Your task to perform on an android device: Clear the shopping cart on bestbuy.com. Search for "acer predator" on bestbuy.com, select the first entry, add it to the cart, then select checkout. Image 0: 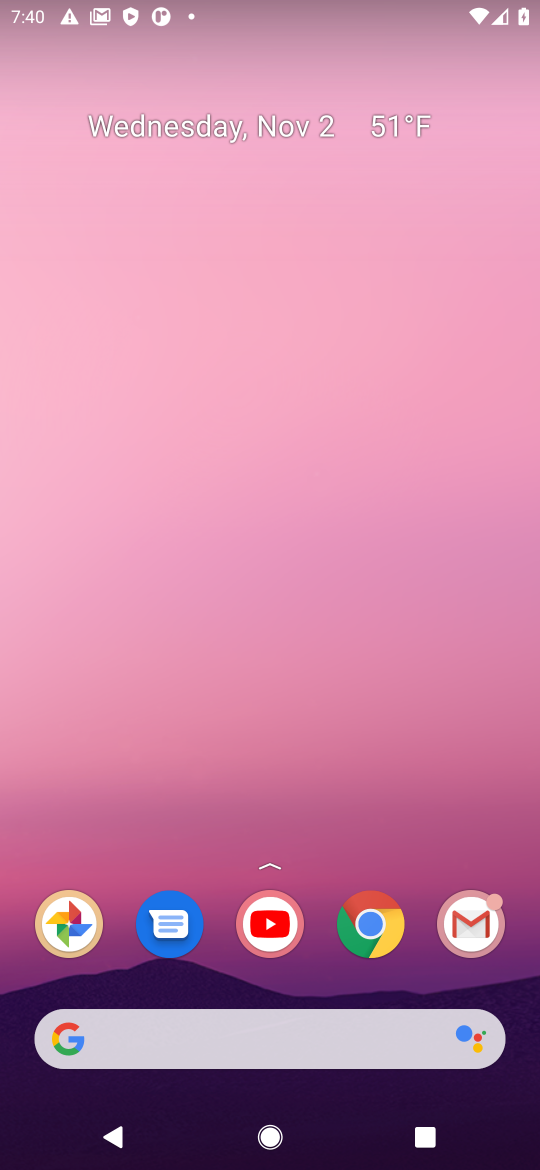
Step 0: click (381, 929)
Your task to perform on an android device: Clear the shopping cart on bestbuy.com. Search for "acer predator" on bestbuy.com, select the first entry, add it to the cart, then select checkout. Image 1: 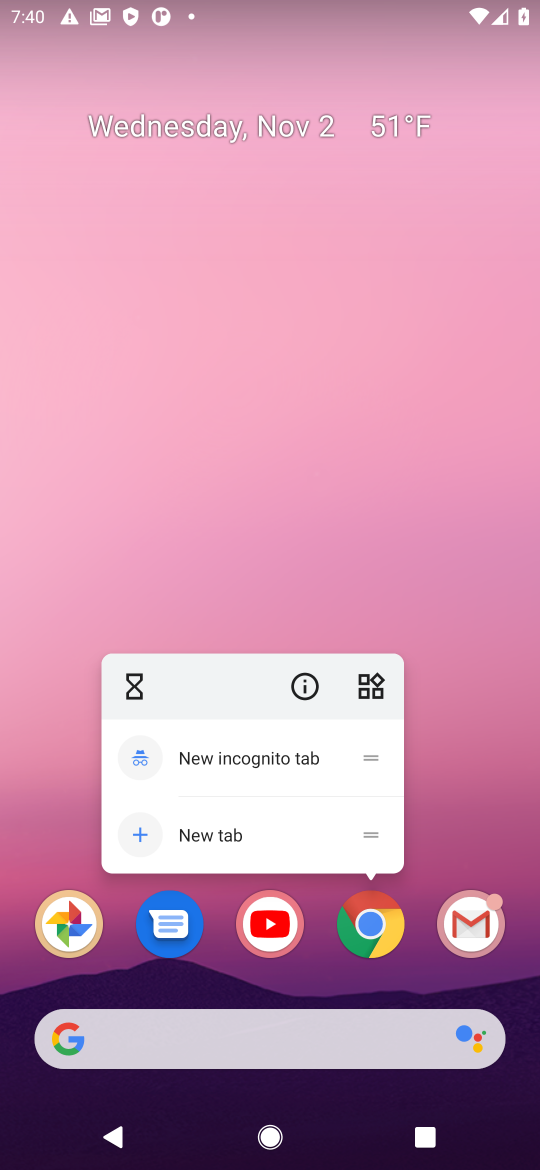
Step 1: click (351, 938)
Your task to perform on an android device: Clear the shopping cart on bestbuy.com. Search for "acer predator" on bestbuy.com, select the first entry, add it to the cart, then select checkout. Image 2: 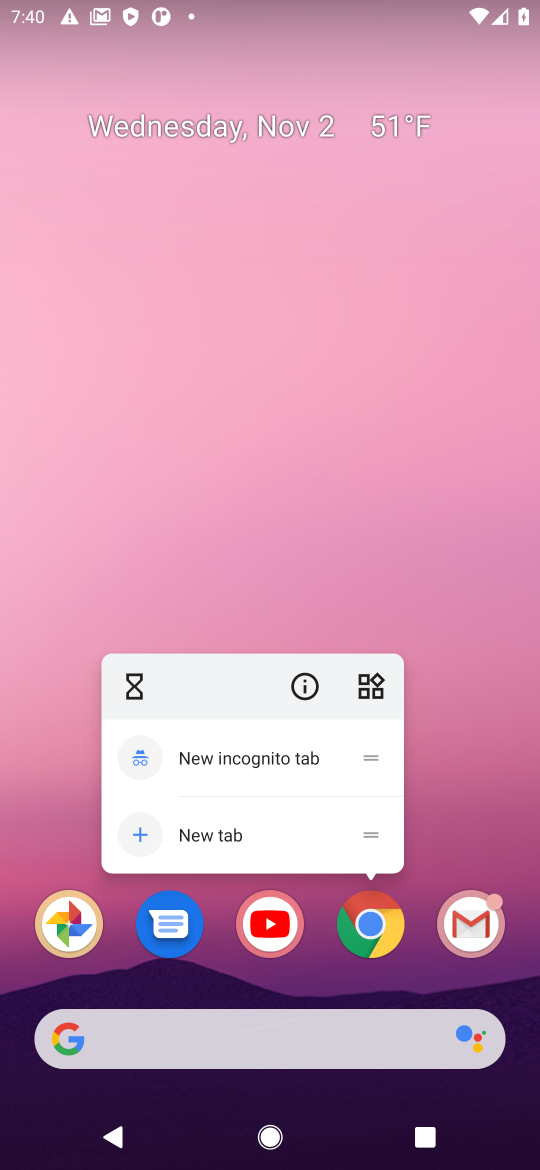
Step 2: click (348, 935)
Your task to perform on an android device: Clear the shopping cart on bestbuy.com. Search for "acer predator" on bestbuy.com, select the first entry, add it to the cart, then select checkout. Image 3: 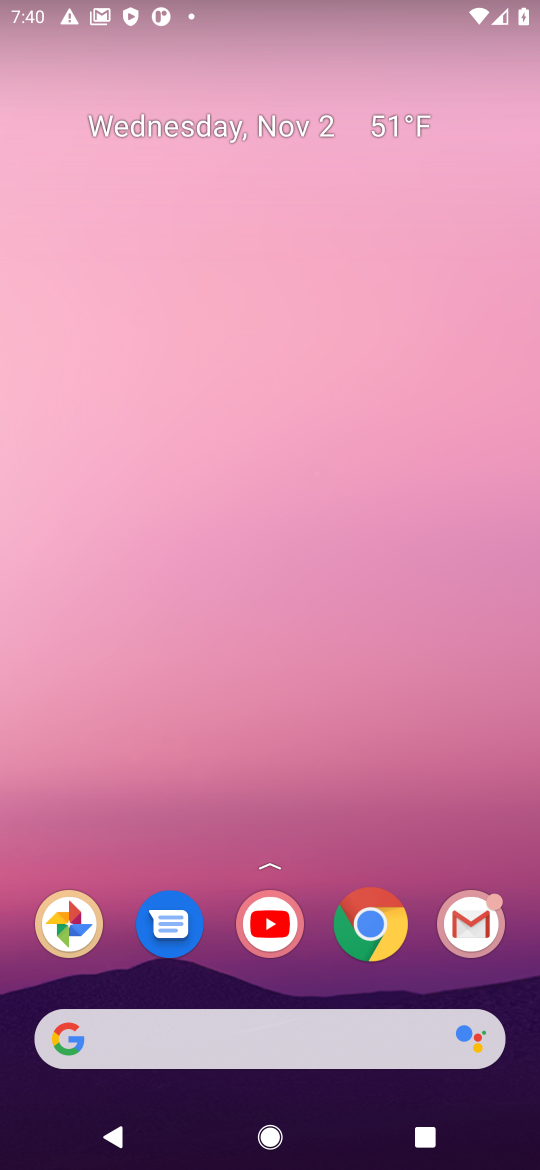
Step 3: click (379, 928)
Your task to perform on an android device: Clear the shopping cart on bestbuy.com. Search for "acer predator" on bestbuy.com, select the first entry, add it to the cart, then select checkout. Image 4: 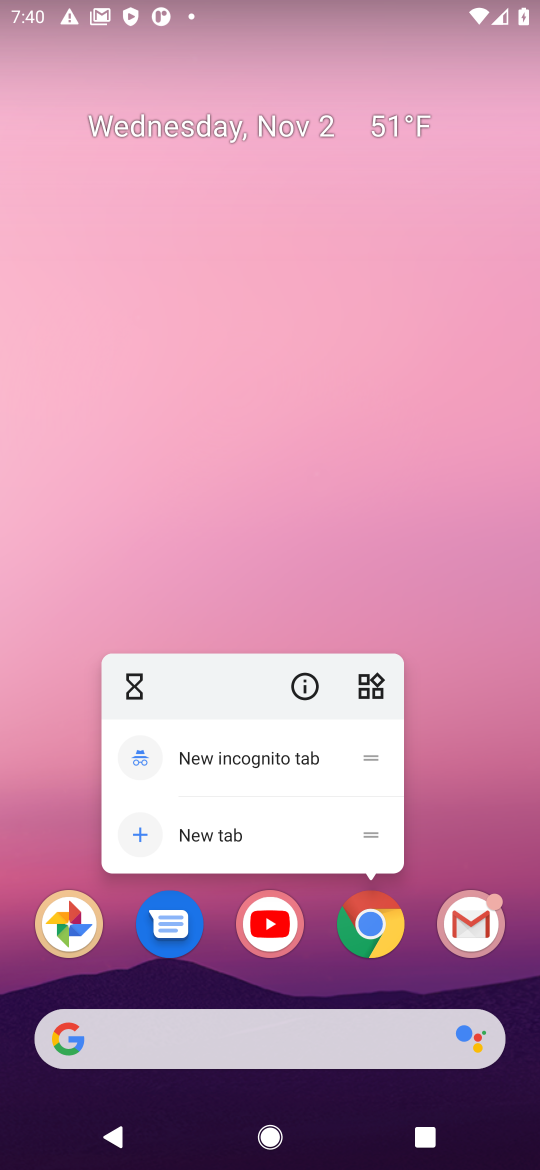
Step 4: click (356, 927)
Your task to perform on an android device: Clear the shopping cart on bestbuy.com. Search for "acer predator" on bestbuy.com, select the first entry, add it to the cart, then select checkout. Image 5: 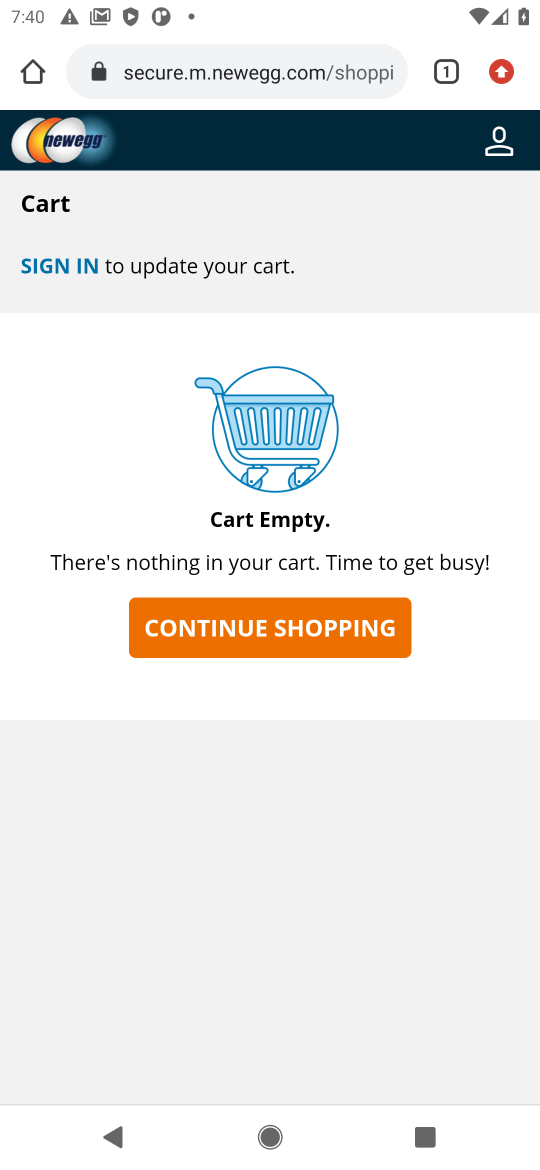
Step 5: click (257, 75)
Your task to perform on an android device: Clear the shopping cart on bestbuy.com. Search for "acer predator" on bestbuy.com, select the first entry, add it to the cart, then select checkout. Image 6: 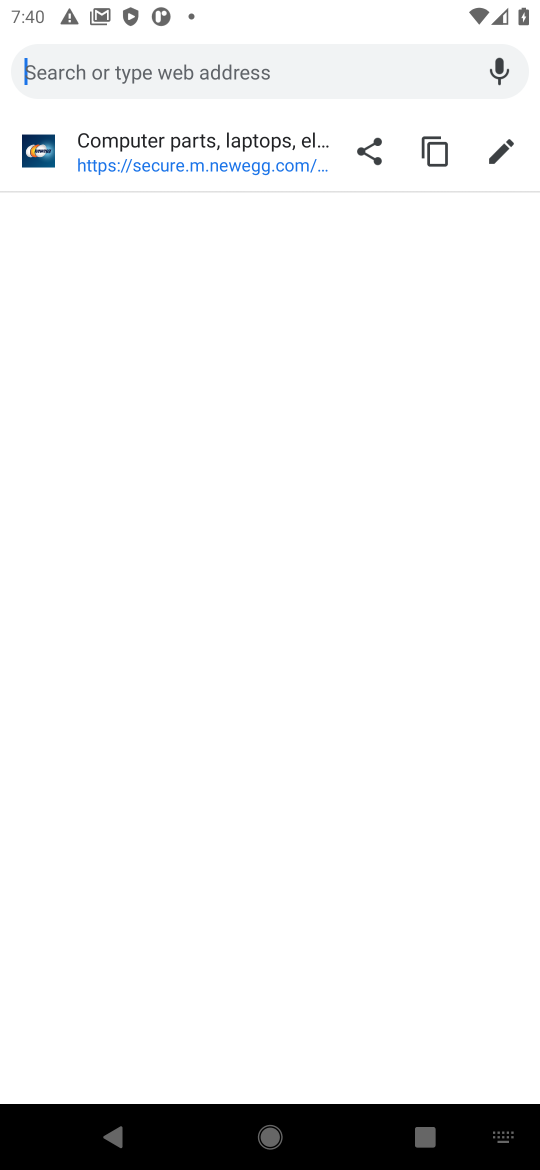
Step 6: type "best buy"
Your task to perform on an android device: Clear the shopping cart on bestbuy.com. Search for "acer predator" on bestbuy.com, select the first entry, add it to the cart, then select checkout. Image 7: 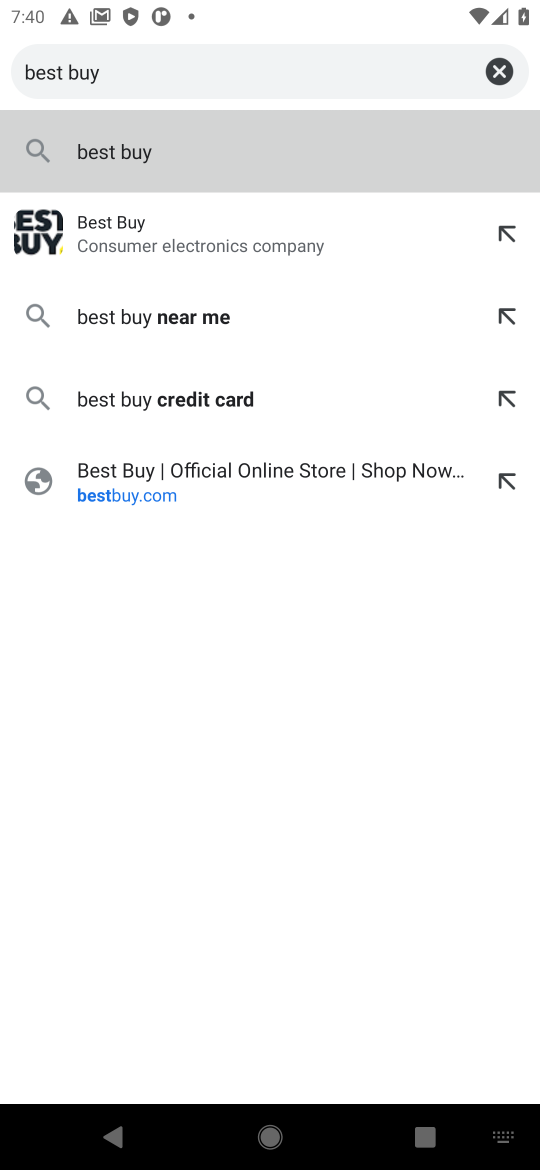
Step 7: type ""
Your task to perform on an android device: Clear the shopping cart on bestbuy.com. Search for "acer predator" on bestbuy.com, select the first entry, add it to the cart, then select checkout. Image 8: 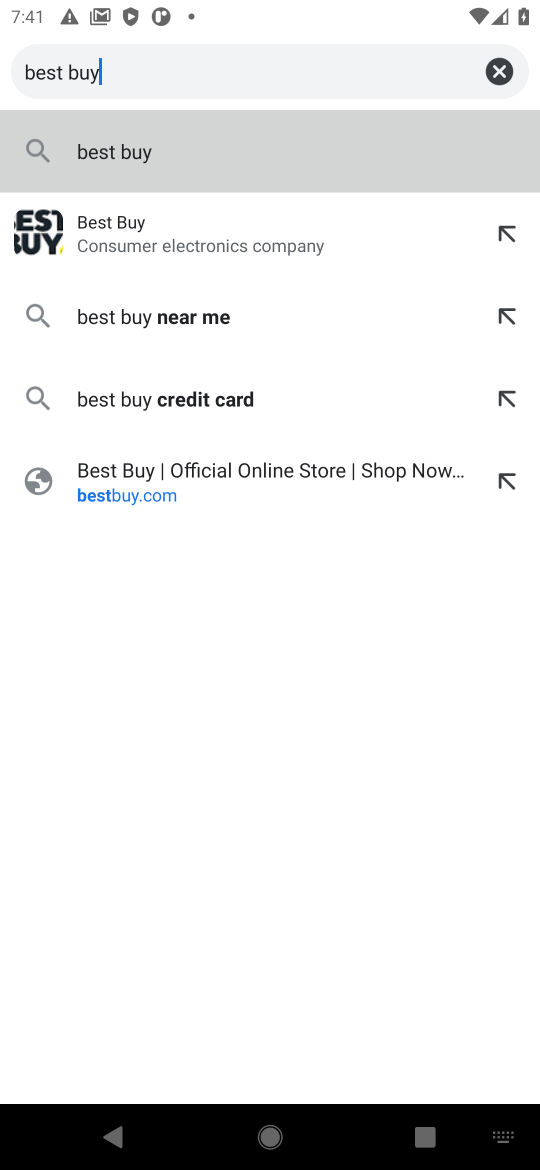
Step 8: click (164, 244)
Your task to perform on an android device: Clear the shopping cart on bestbuy.com. Search for "acer predator" on bestbuy.com, select the first entry, add it to the cart, then select checkout. Image 9: 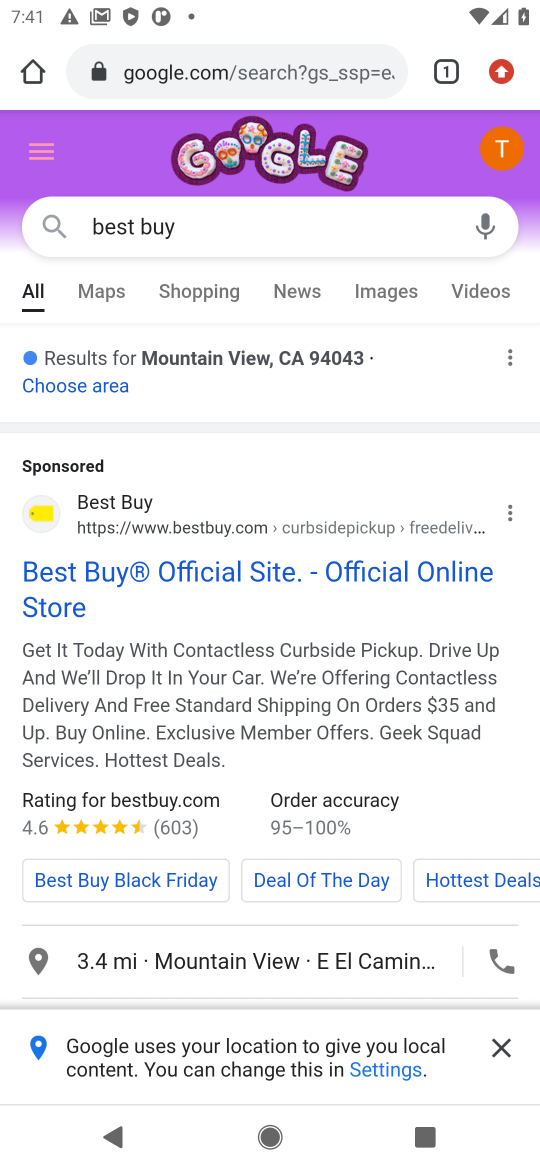
Step 9: click (222, 576)
Your task to perform on an android device: Clear the shopping cart on bestbuy.com. Search for "acer predator" on bestbuy.com, select the first entry, add it to the cart, then select checkout. Image 10: 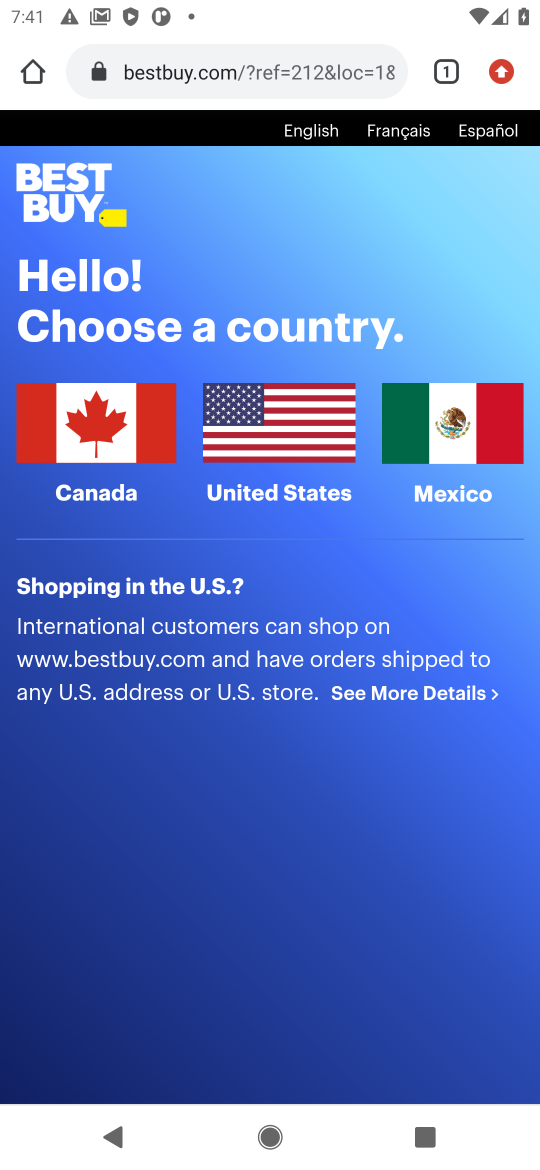
Step 10: click (297, 454)
Your task to perform on an android device: Clear the shopping cart on bestbuy.com. Search for "acer predator" on bestbuy.com, select the first entry, add it to the cart, then select checkout. Image 11: 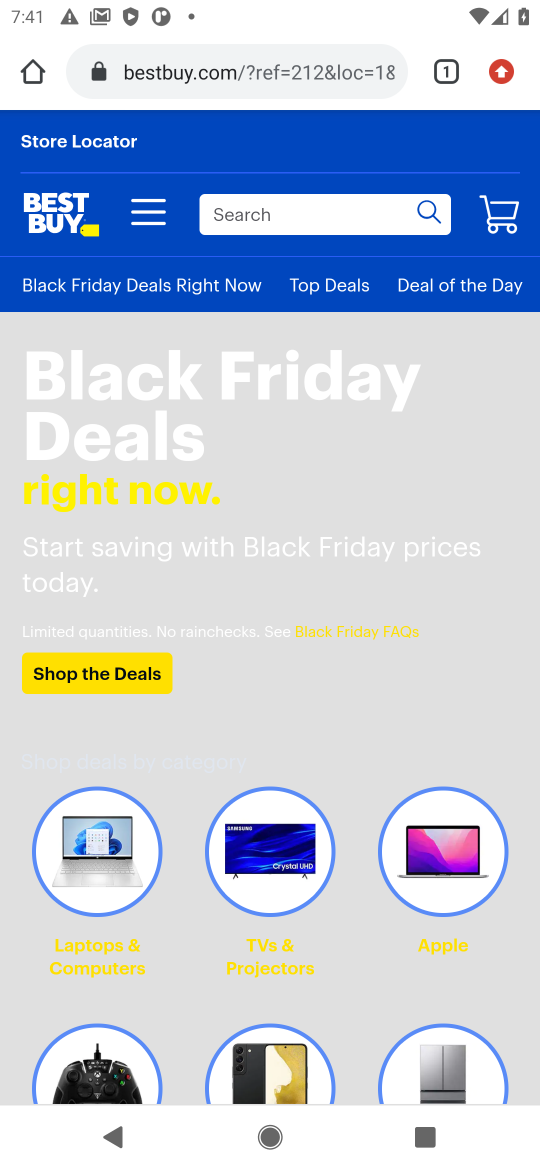
Step 11: click (240, 218)
Your task to perform on an android device: Clear the shopping cart on bestbuy.com. Search for "acer predator" on bestbuy.com, select the first entry, add it to the cart, then select checkout. Image 12: 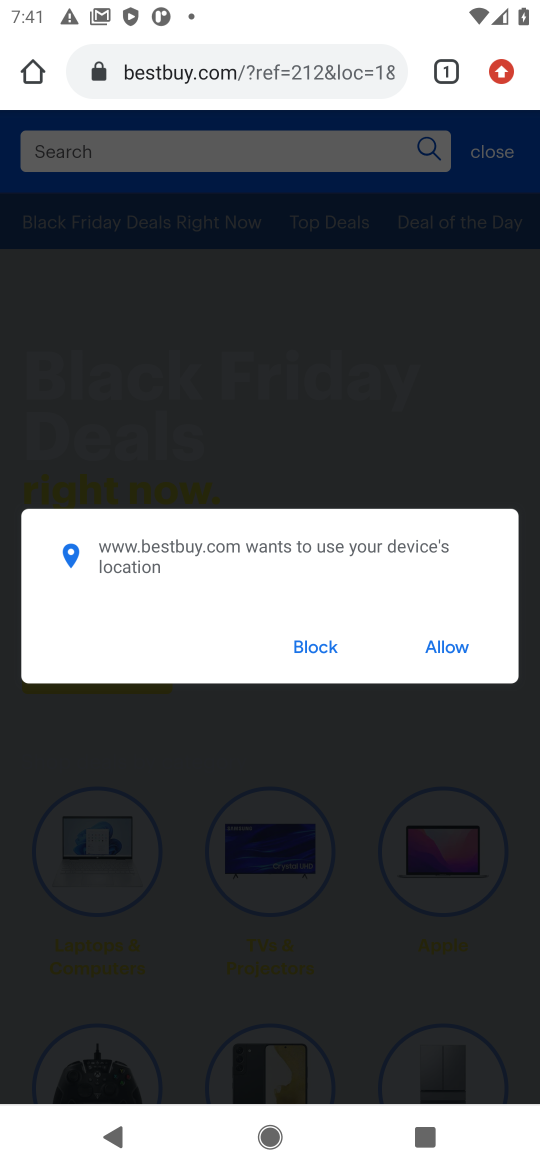
Step 12: type "acerbpredator"
Your task to perform on an android device: Clear the shopping cart on bestbuy.com. Search for "acer predator" on bestbuy.com, select the first entry, add it to the cart, then select checkout. Image 13: 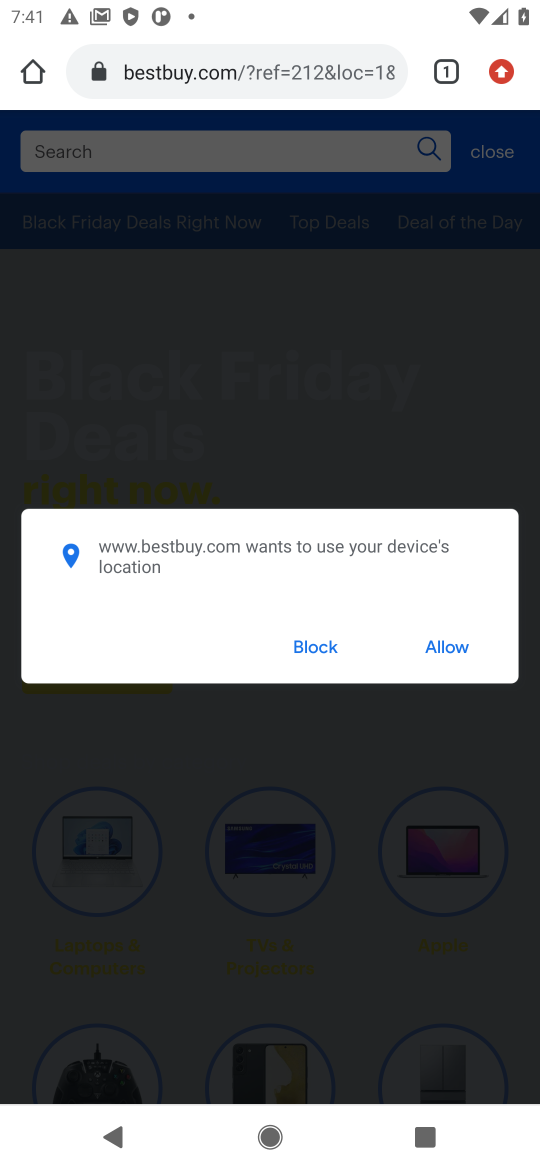
Step 13: type ""
Your task to perform on an android device: Clear the shopping cart on bestbuy.com. Search for "acer predator" on bestbuy.com, select the first entry, add it to the cart, then select checkout. Image 14: 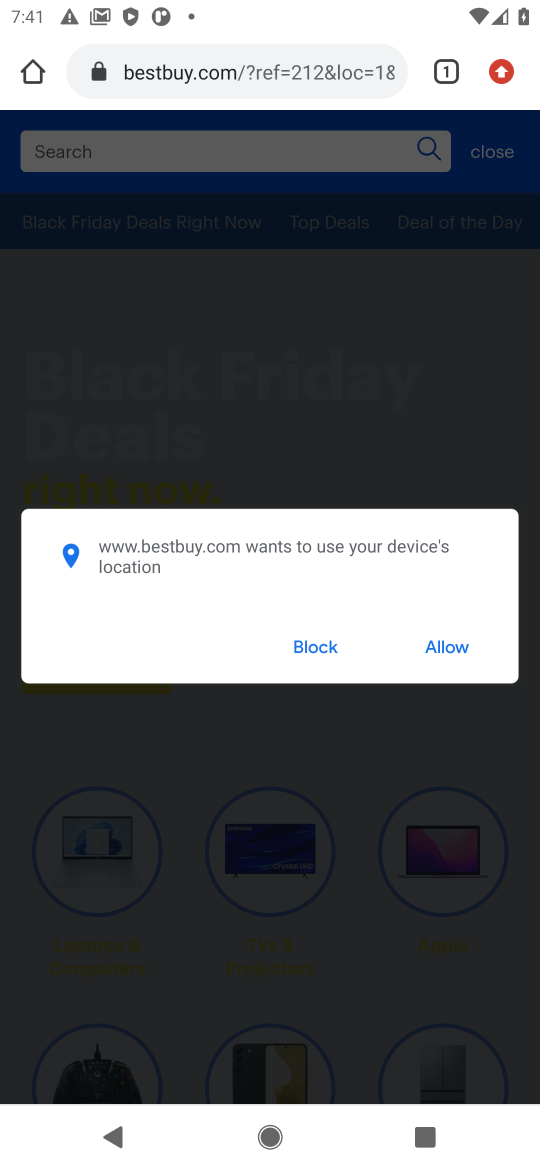
Step 14: click (451, 651)
Your task to perform on an android device: Clear the shopping cart on bestbuy.com. Search for "acer predator" on bestbuy.com, select the first entry, add it to the cart, then select checkout. Image 15: 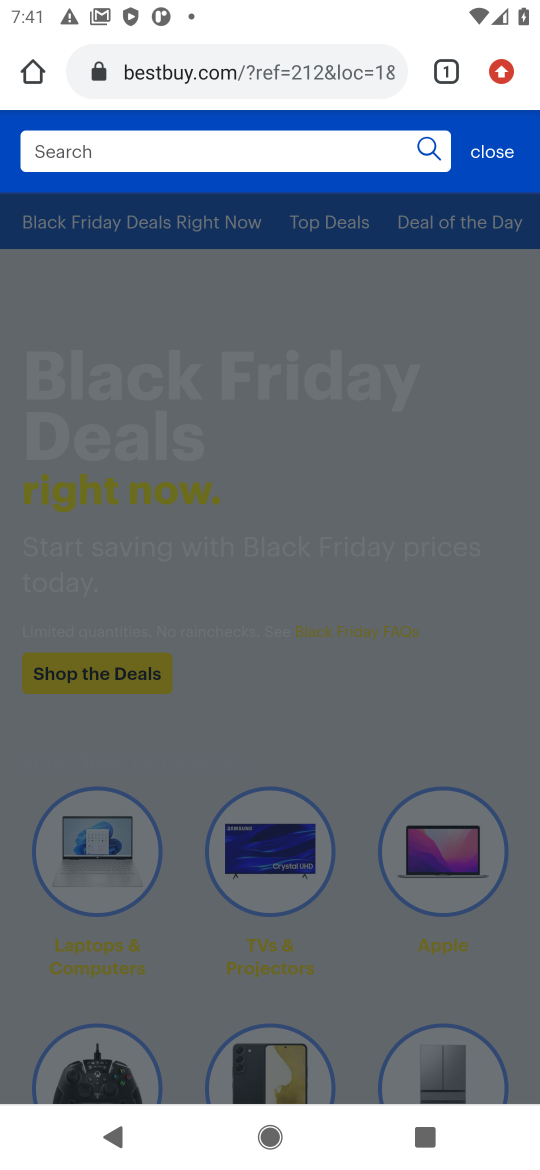
Step 15: click (214, 160)
Your task to perform on an android device: Clear the shopping cart on bestbuy.com. Search for "acer predator" on bestbuy.com, select the first entry, add it to the cart, then select checkout. Image 16: 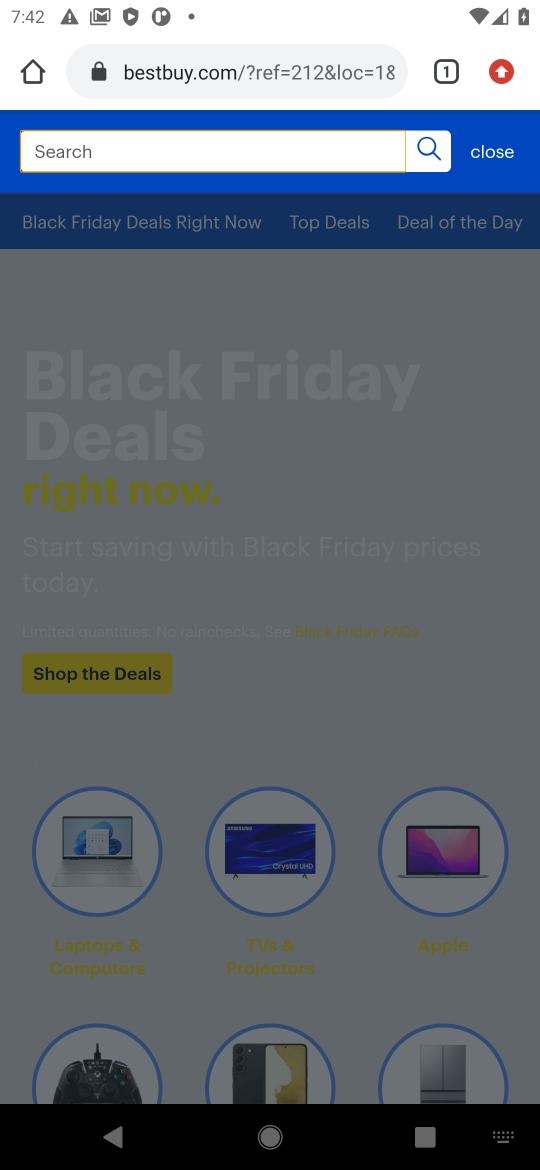
Step 16: type "acer predator"
Your task to perform on an android device: Clear the shopping cart on bestbuy.com. Search for "acer predator" on bestbuy.com, select the first entry, add it to the cart, then select checkout. Image 17: 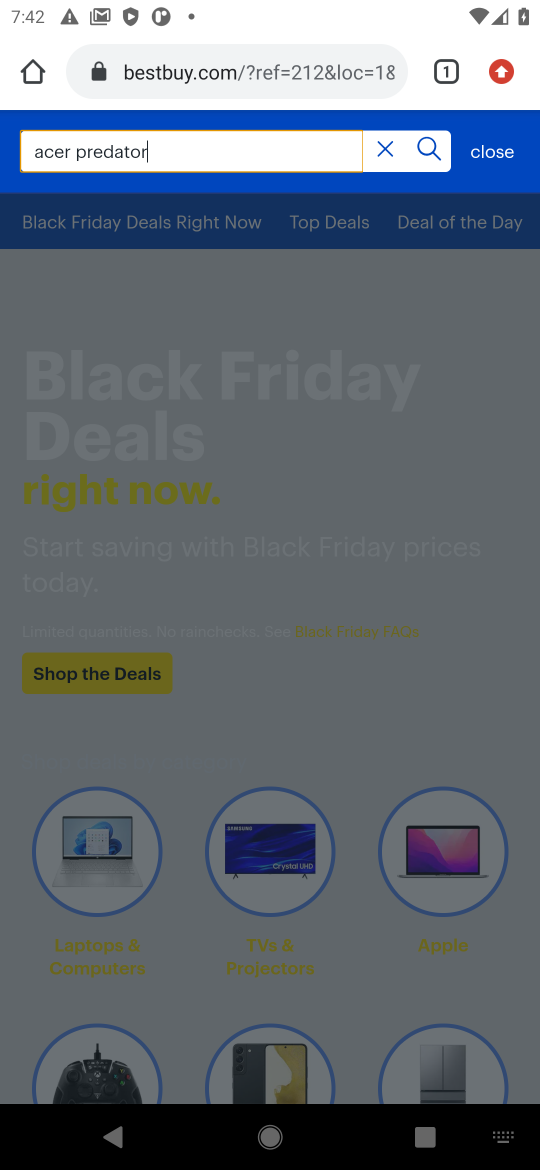
Step 17: type ""
Your task to perform on an android device: Clear the shopping cart on bestbuy.com. Search for "acer predator" on bestbuy.com, select the first entry, add it to the cart, then select checkout. Image 18: 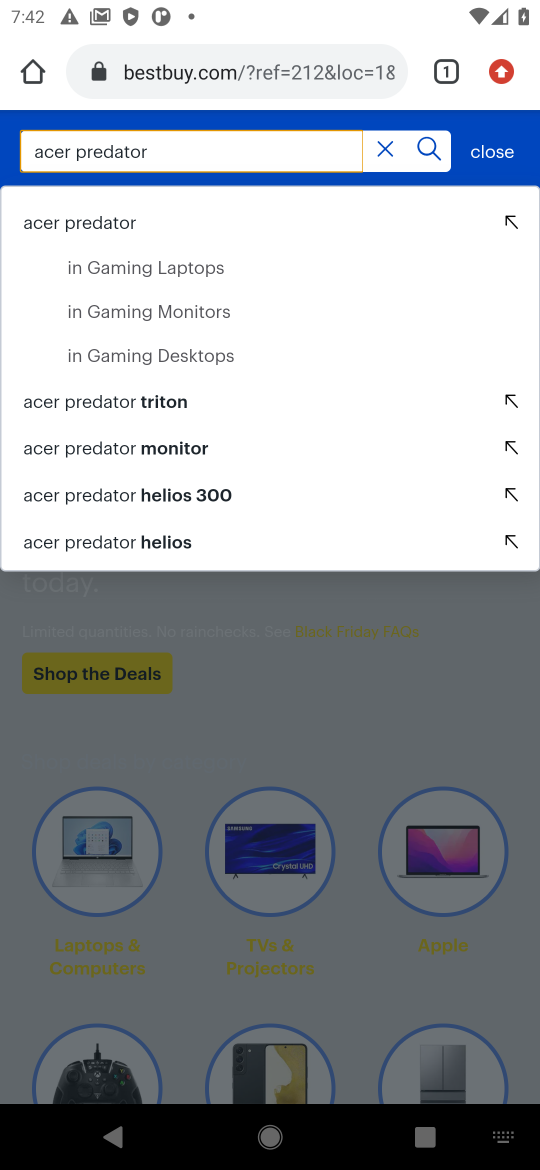
Step 18: click (63, 214)
Your task to perform on an android device: Clear the shopping cart on bestbuy.com. Search for "acer predator" on bestbuy.com, select the first entry, add it to the cart, then select checkout. Image 19: 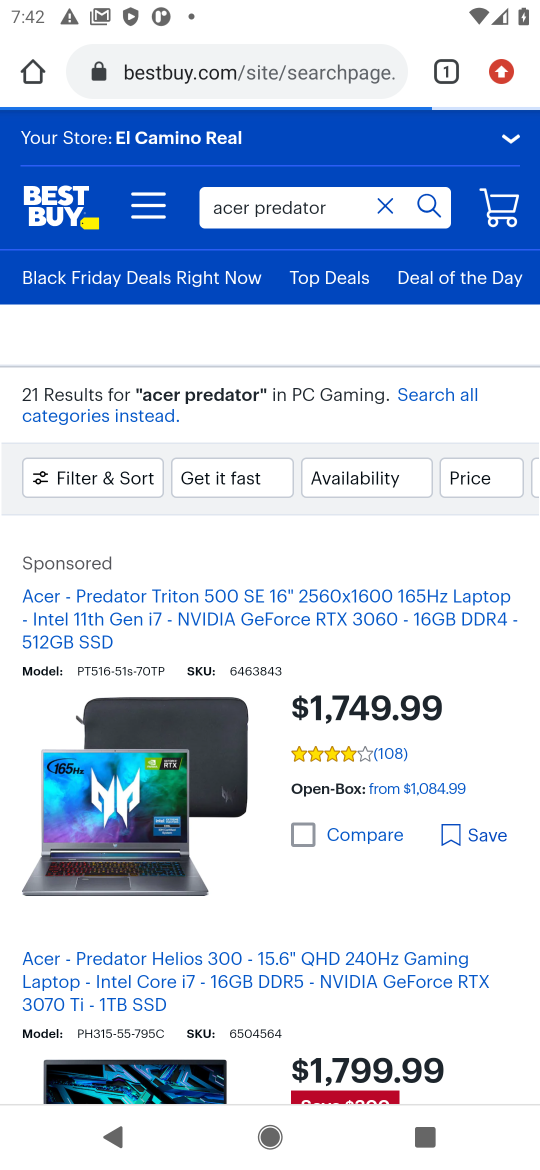
Step 19: click (158, 835)
Your task to perform on an android device: Clear the shopping cart on bestbuy.com. Search for "acer predator" on bestbuy.com, select the first entry, add it to the cart, then select checkout. Image 20: 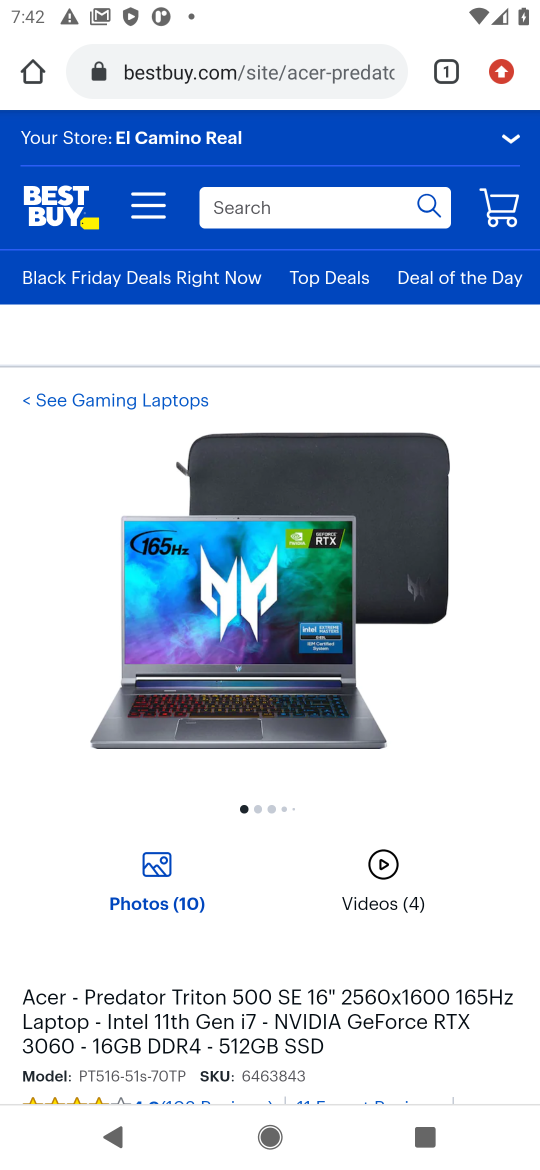
Step 20: drag from (169, 985) to (309, 354)
Your task to perform on an android device: Clear the shopping cart on bestbuy.com. Search for "acer predator" on bestbuy.com, select the first entry, add it to the cart, then select checkout. Image 21: 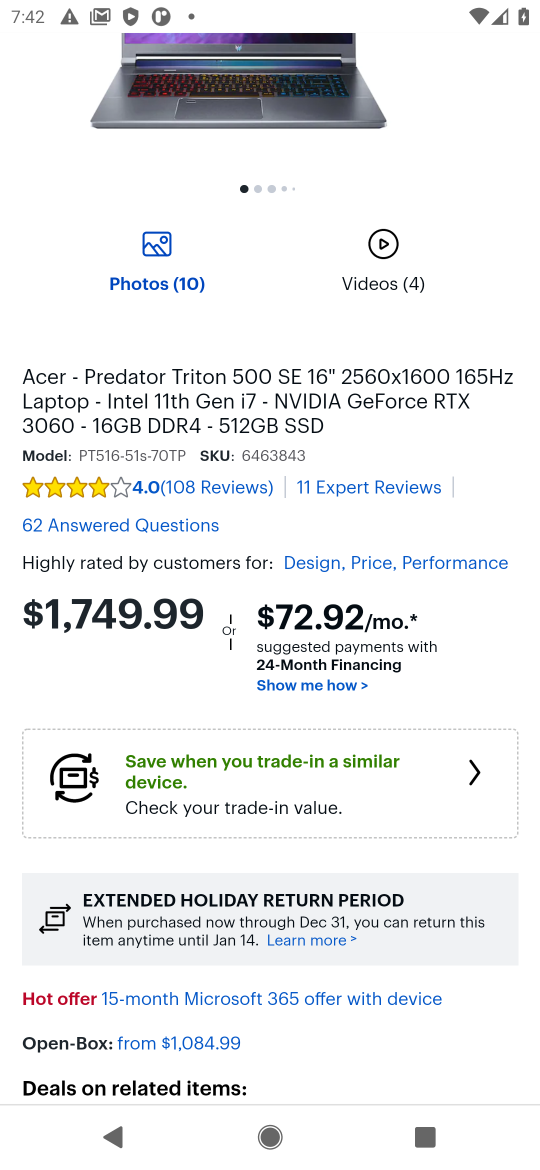
Step 21: drag from (256, 886) to (318, 547)
Your task to perform on an android device: Clear the shopping cart on bestbuy.com. Search for "acer predator" on bestbuy.com, select the first entry, add it to the cart, then select checkout. Image 22: 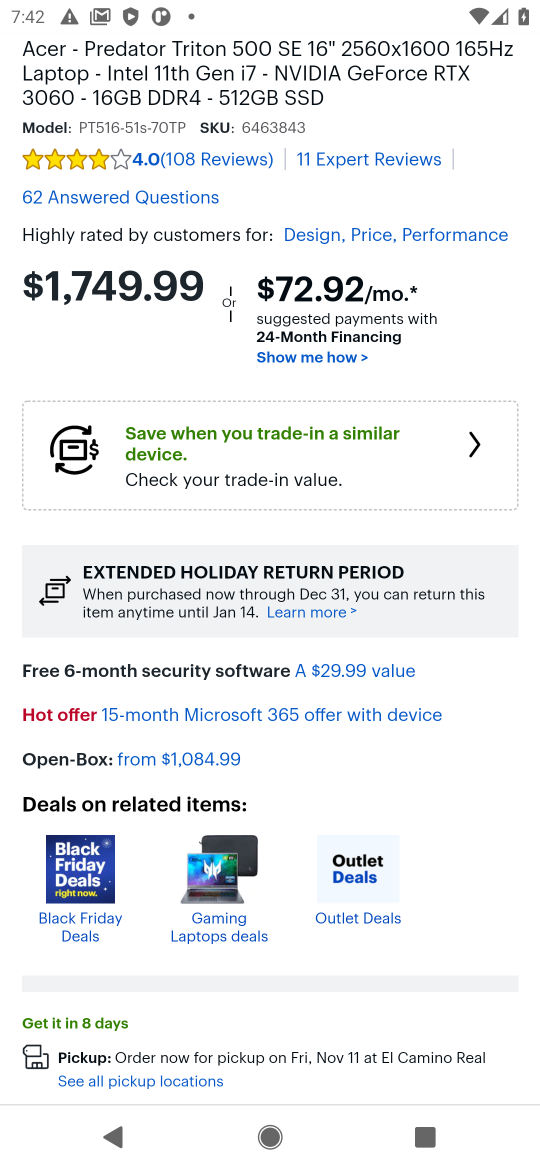
Step 22: drag from (307, 1033) to (264, 606)
Your task to perform on an android device: Clear the shopping cart on bestbuy.com. Search for "acer predator" on bestbuy.com, select the first entry, add it to the cart, then select checkout. Image 23: 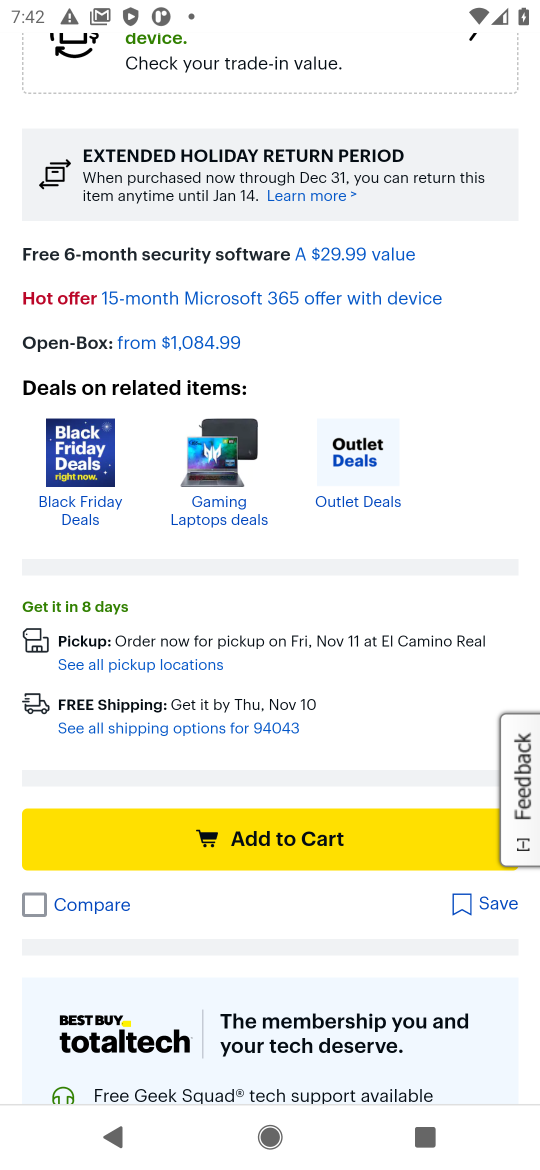
Step 23: click (246, 847)
Your task to perform on an android device: Clear the shopping cart on bestbuy.com. Search for "acer predator" on bestbuy.com, select the first entry, add it to the cart, then select checkout. Image 24: 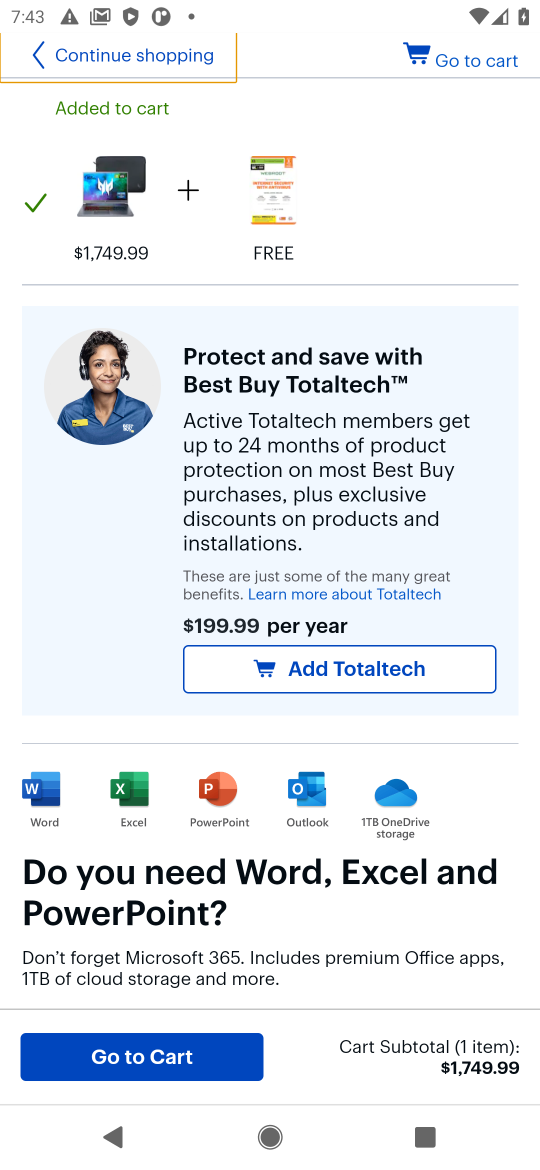
Step 24: click (176, 1064)
Your task to perform on an android device: Clear the shopping cart on bestbuy.com. Search for "acer predator" on bestbuy.com, select the first entry, add it to the cart, then select checkout. Image 25: 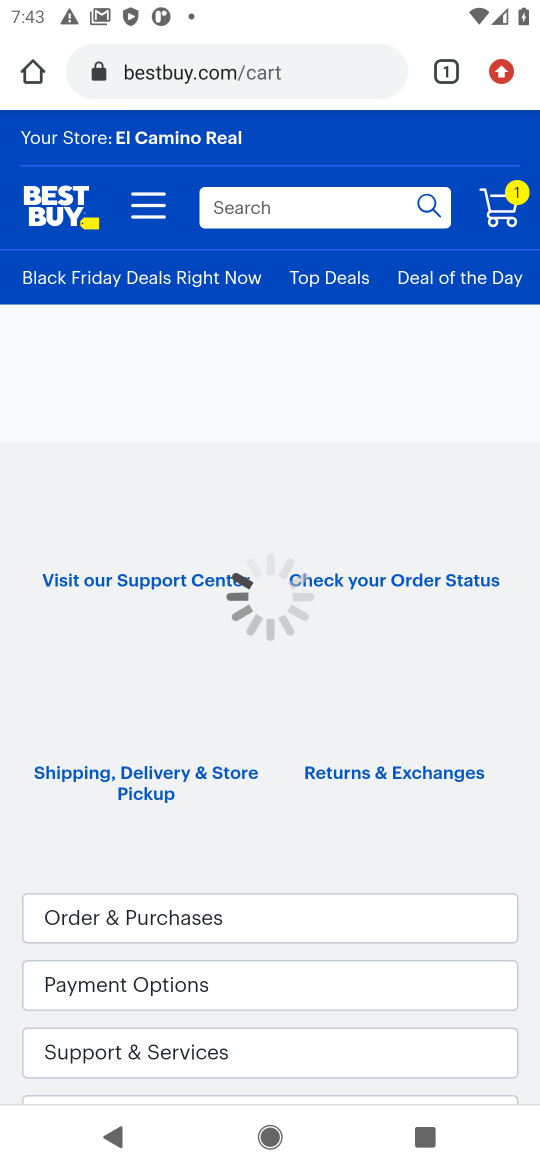
Step 25: click (507, 232)
Your task to perform on an android device: Clear the shopping cart on bestbuy.com. Search for "acer predator" on bestbuy.com, select the first entry, add it to the cart, then select checkout. Image 26: 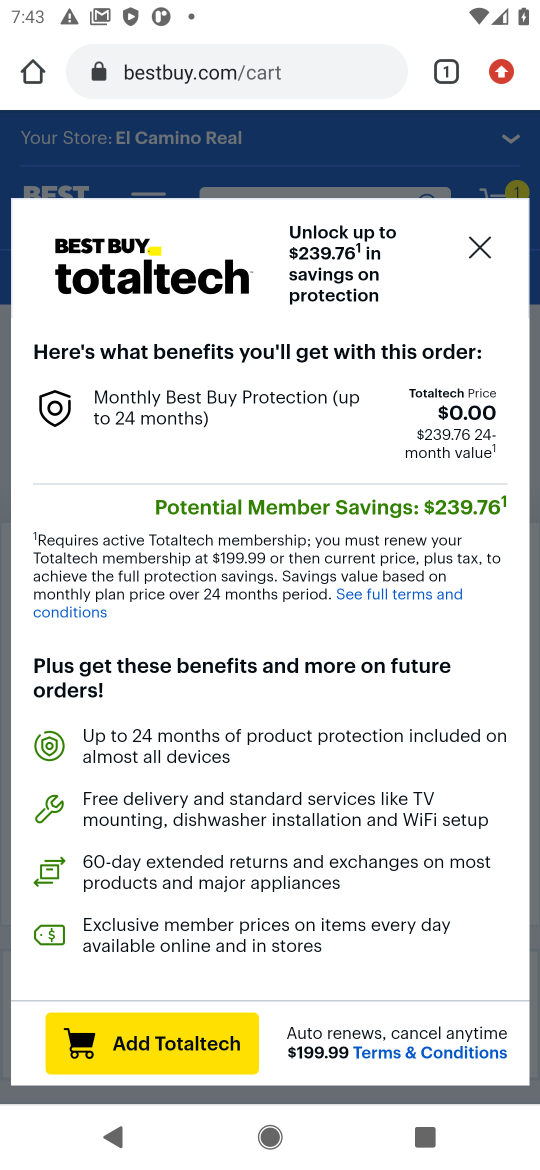
Step 26: click (476, 238)
Your task to perform on an android device: Clear the shopping cart on bestbuy.com. Search for "acer predator" on bestbuy.com, select the first entry, add it to the cart, then select checkout. Image 27: 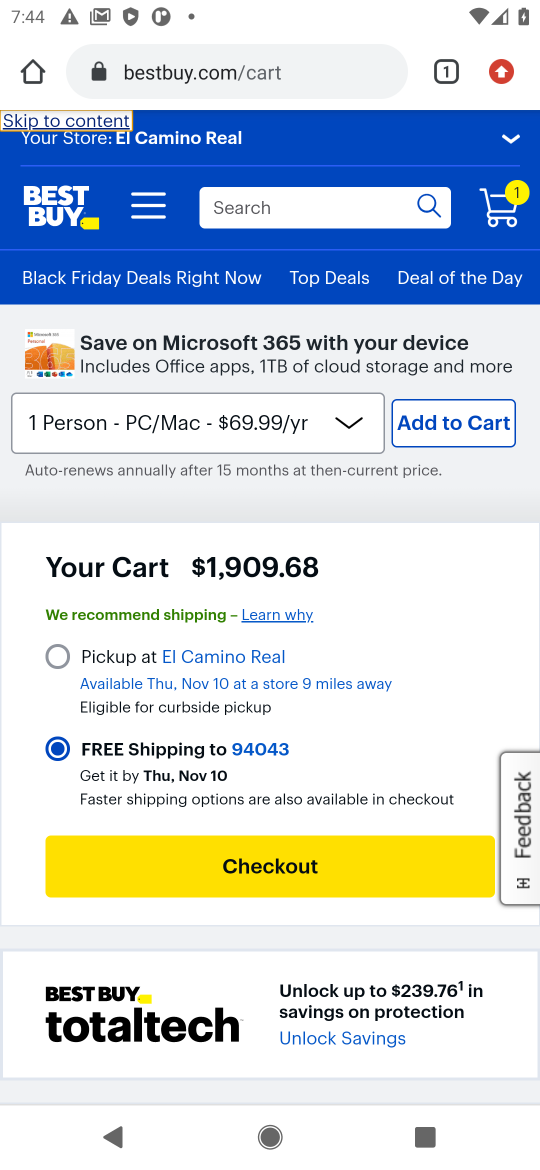
Step 27: click (225, 852)
Your task to perform on an android device: Clear the shopping cart on bestbuy.com. Search for "acer predator" on bestbuy.com, select the first entry, add it to the cart, then select checkout. Image 28: 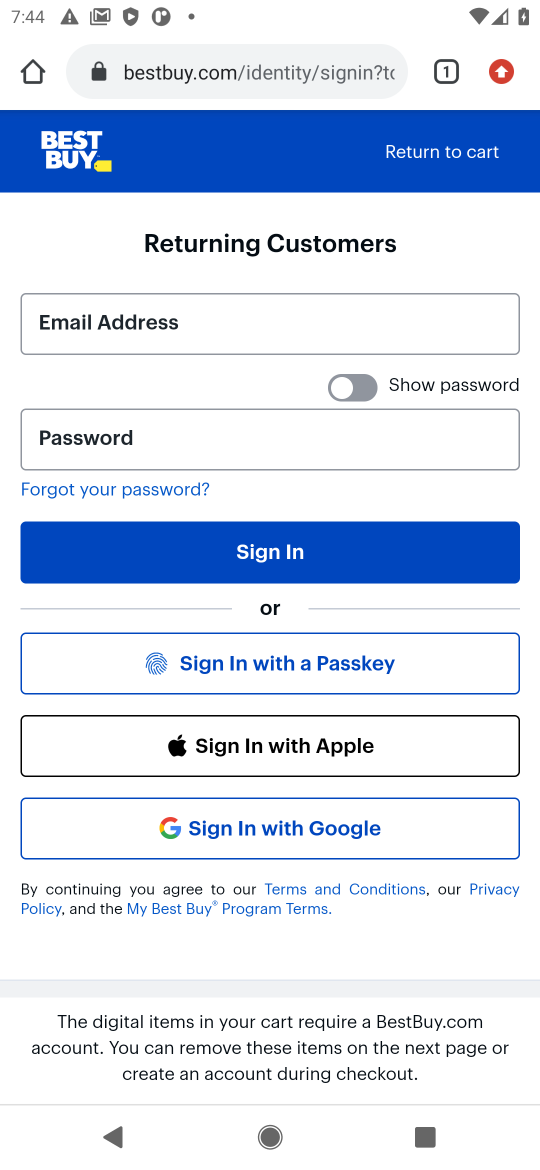
Step 28: task complete